Your task to perform on an android device: Is it going to rain this weekend? Image 0: 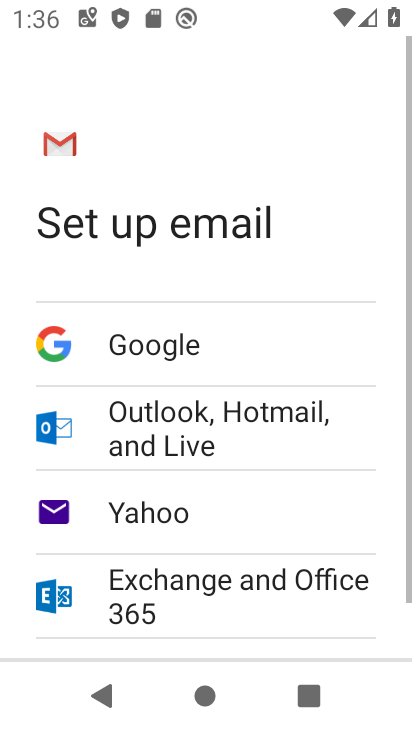
Step 0: drag from (363, 526) to (266, 181)
Your task to perform on an android device: Is it going to rain this weekend? Image 1: 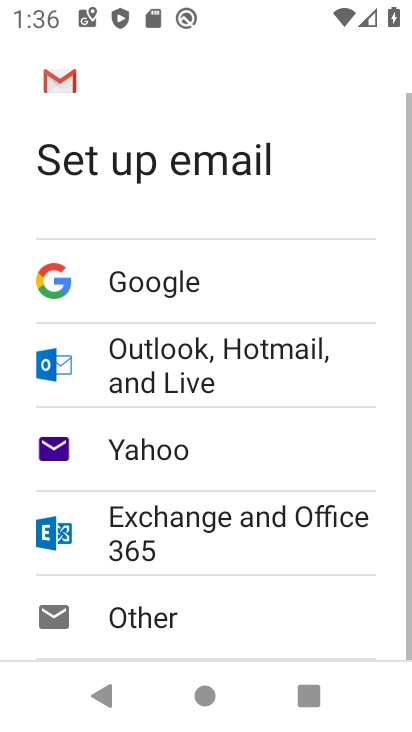
Step 1: press home button
Your task to perform on an android device: Is it going to rain this weekend? Image 2: 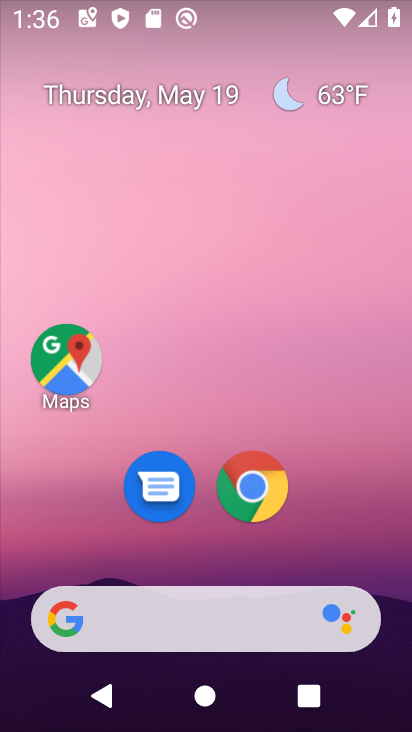
Step 2: click (317, 94)
Your task to perform on an android device: Is it going to rain this weekend? Image 3: 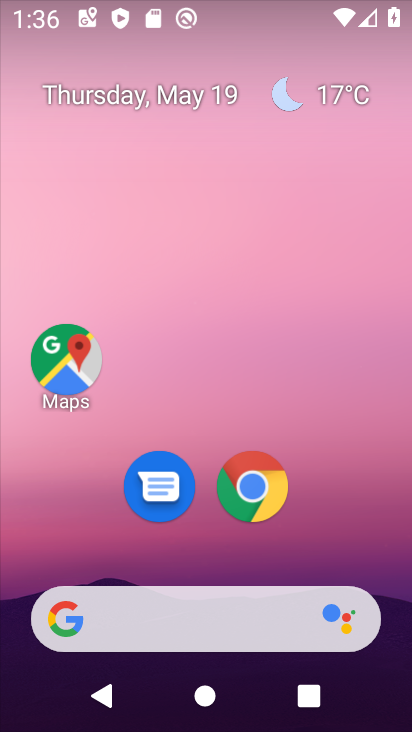
Step 3: click (336, 92)
Your task to perform on an android device: Is it going to rain this weekend? Image 4: 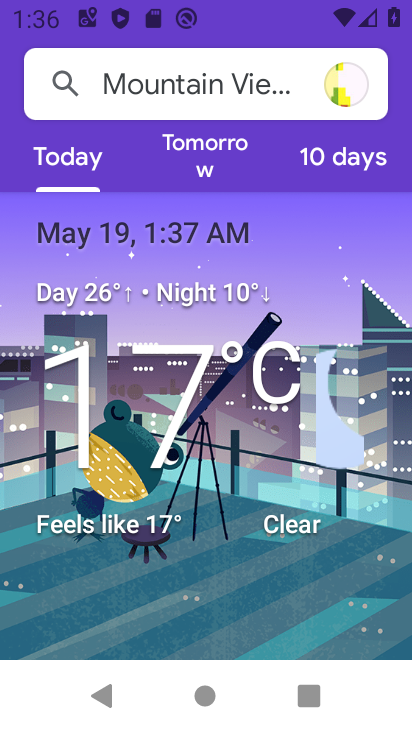
Step 4: click (338, 156)
Your task to perform on an android device: Is it going to rain this weekend? Image 5: 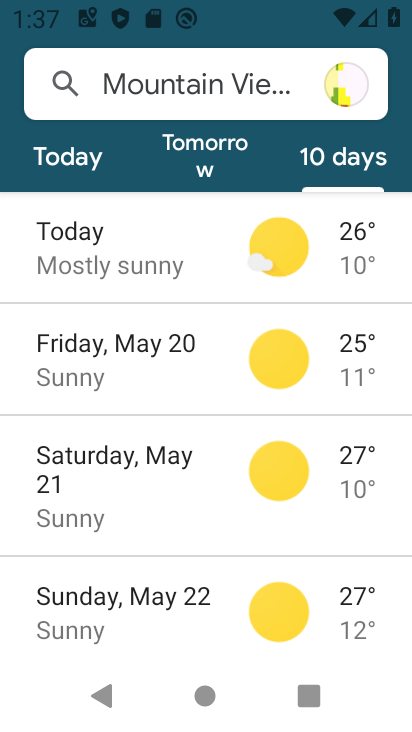
Step 5: task complete